Your task to perform on an android device: turn on translation in the chrome app Image 0: 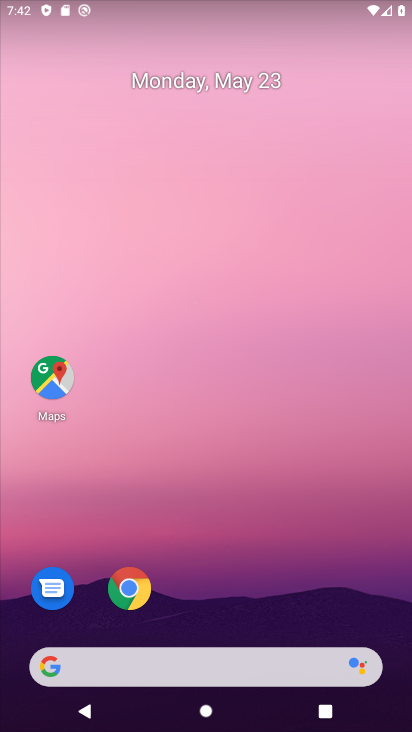
Step 0: click (126, 586)
Your task to perform on an android device: turn on translation in the chrome app Image 1: 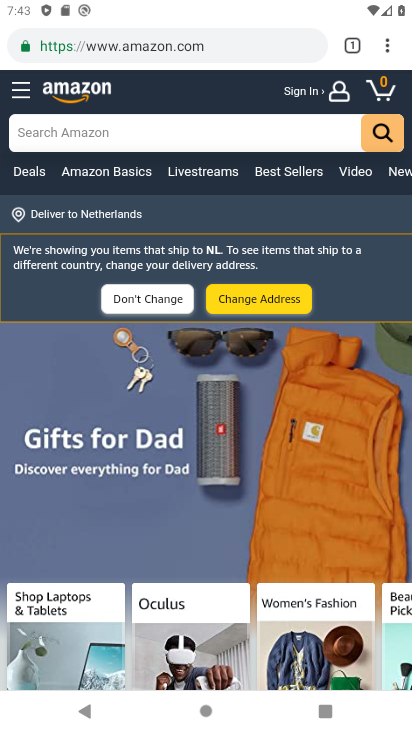
Step 1: click (389, 40)
Your task to perform on an android device: turn on translation in the chrome app Image 2: 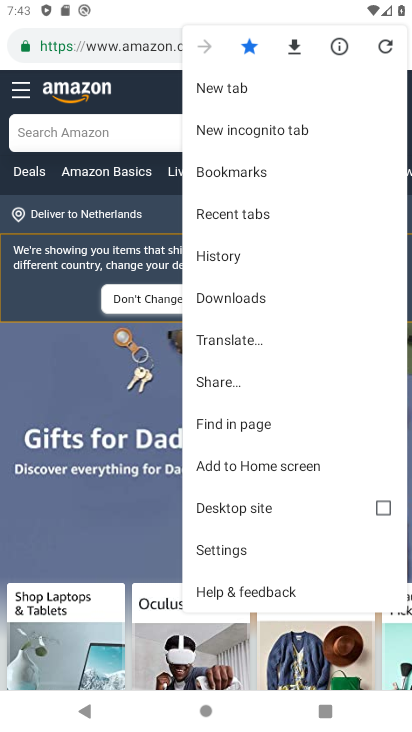
Step 2: click (224, 551)
Your task to perform on an android device: turn on translation in the chrome app Image 3: 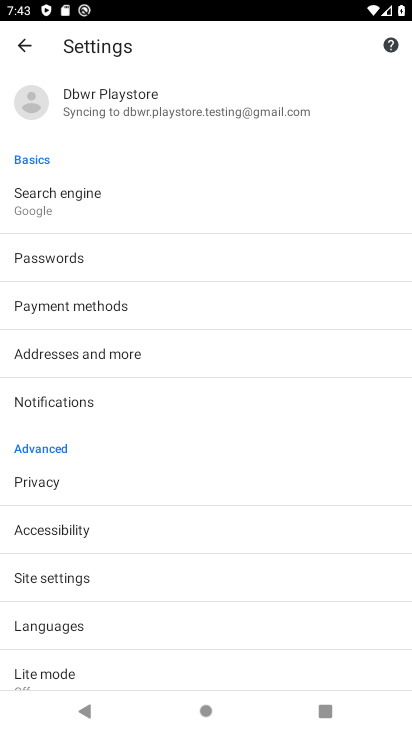
Step 3: click (75, 628)
Your task to perform on an android device: turn on translation in the chrome app Image 4: 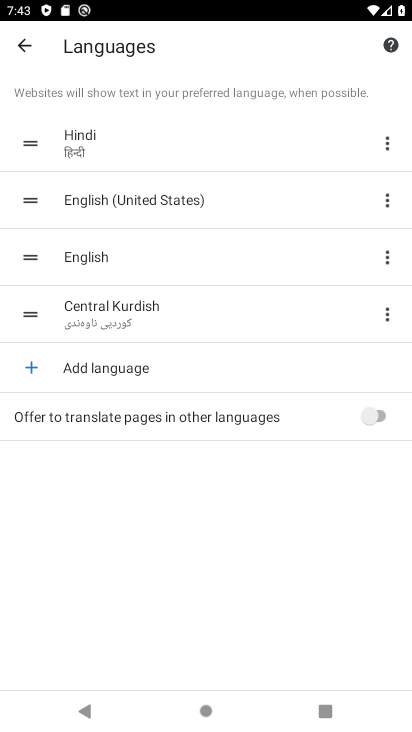
Step 4: click (381, 415)
Your task to perform on an android device: turn on translation in the chrome app Image 5: 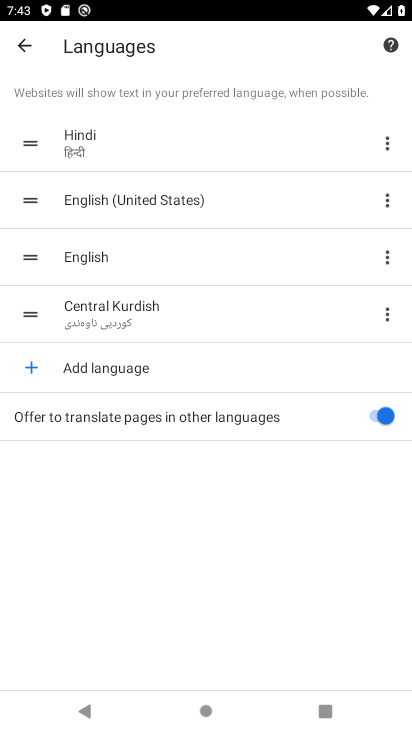
Step 5: task complete